Your task to perform on an android device: move an email to a new category in the gmail app Image 0: 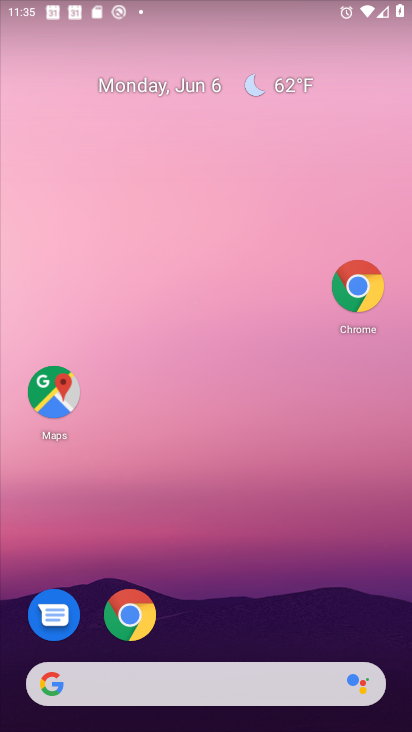
Step 0: drag from (222, 505) to (110, 108)
Your task to perform on an android device: move an email to a new category in the gmail app Image 1: 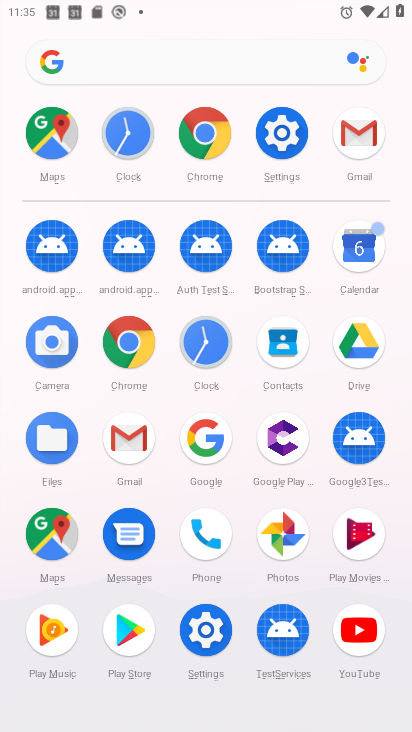
Step 1: click (122, 402)
Your task to perform on an android device: move an email to a new category in the gmail app Image 2: 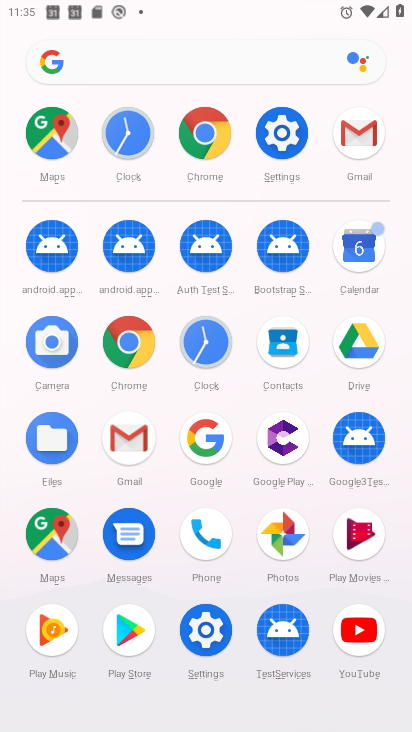
Step 2: click (122, 449)
Your task to perform on an android device: move an email to a new category in the gmail app Image 3: 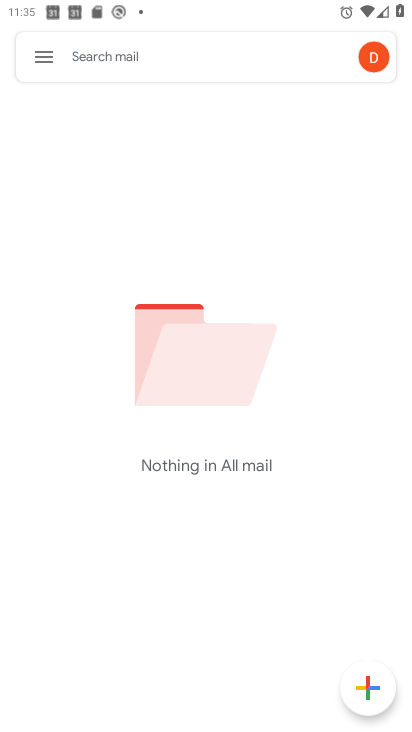
Step 3: click (122, 449)
Your task to perform on an android device: move an email to a new category in the gmail app Image 4: 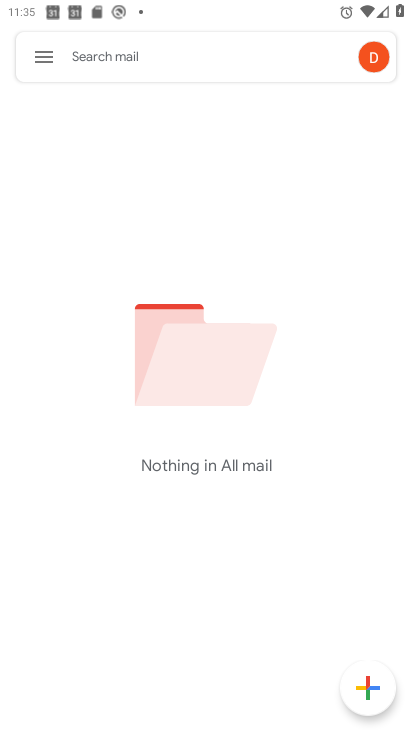
Step 4: click (44, 58)
Your task to perform on an android device: move an email to a new category in the gmail app Image 5: 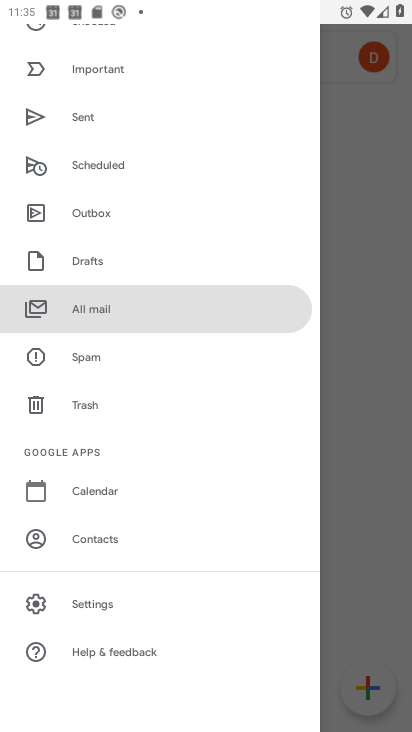
Step 5: click (84, 311)
Your task to perform on an android device: move an email to a new category in the gmail app Image 6: 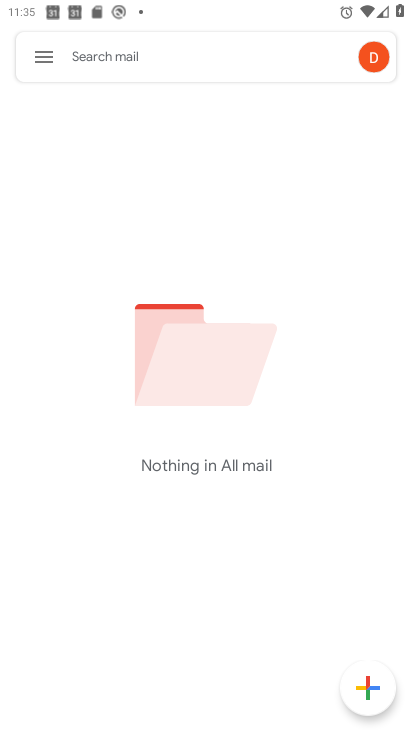
Step 6: task complete